Your task to perform on an android device: Go to Google Image 0: 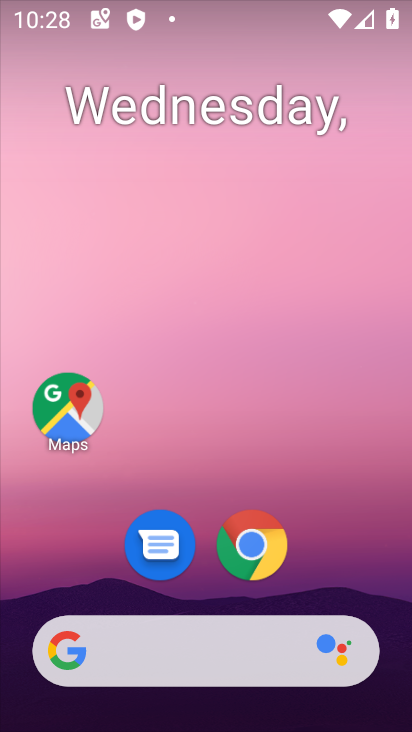
Step 0: drag from (191, 576) to (204, 206)
Your task to perform on an android device: Go to Google Image 1: 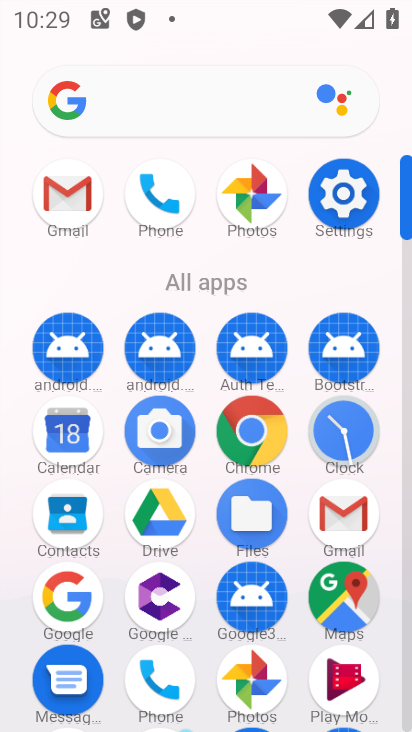
Step 1: click (91, 580)
Your task to perform on an android device: Go to Google Image 2: 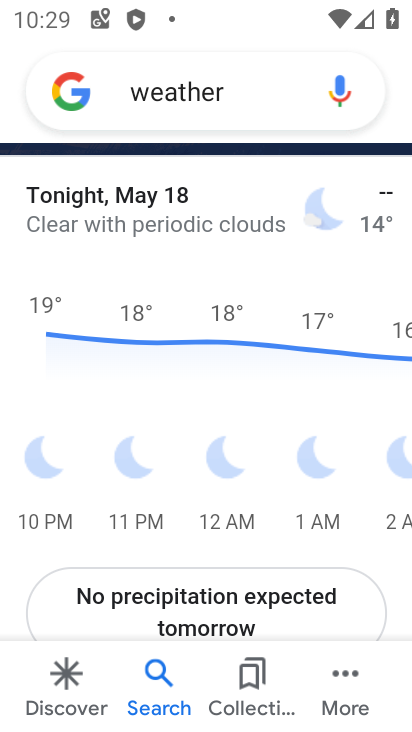
Step 2: task complete